Your task to perform on an android device: clear all cookies in the chrome app Image 0: 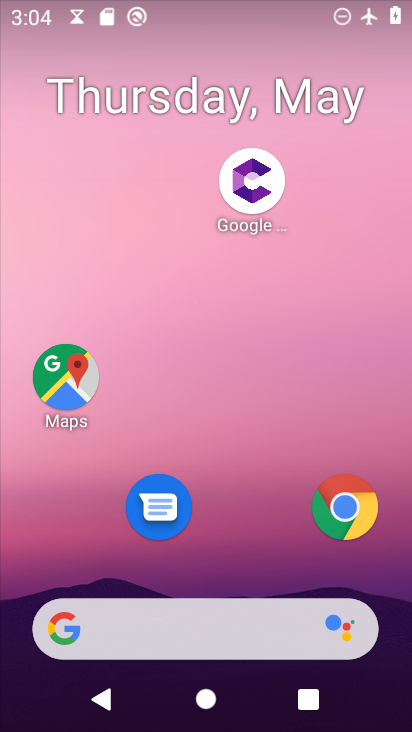
Step 0: click (363, 496)
Your task to perform on an android device: clear all cookies in the chrome app Image 1: 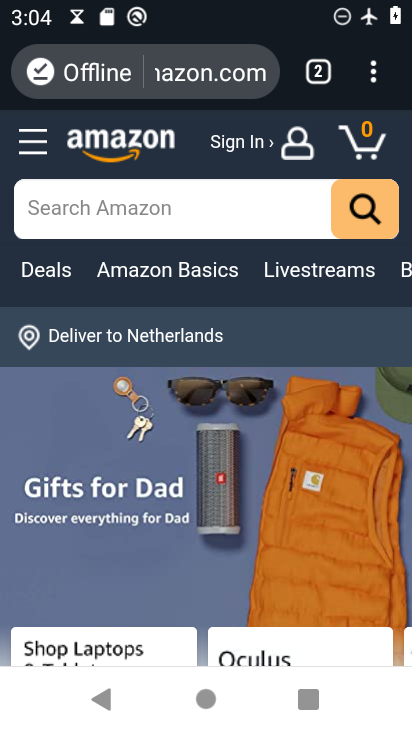
Step 1: click (374, 65)
Your task to perform on an android device: clear all cookies in the chrome app Image 2: 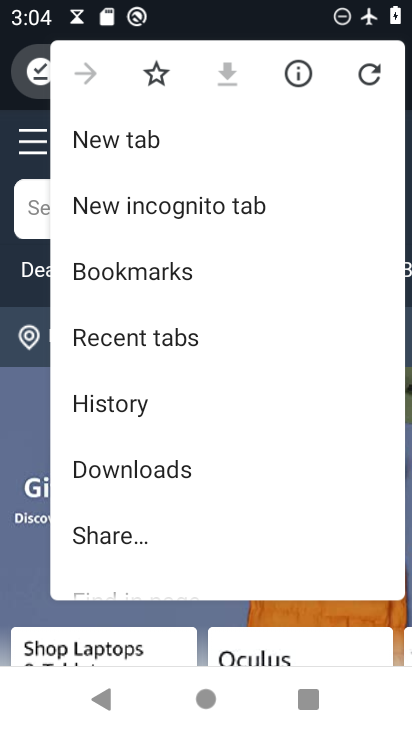
Step 2: drag from (303, 556) to (360, 156)
Your task to perform on an android device: clear all cookies in the chrome app Image 3: 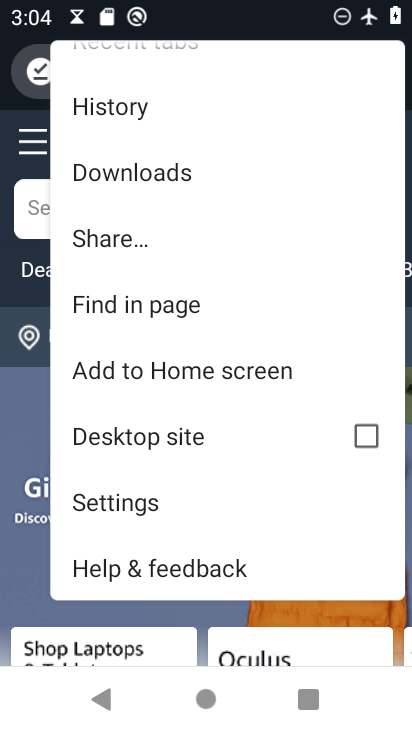
Step 3: click (187, 509)
Your task to perform on an android device: clear all cookies in the chrome app Image 4: 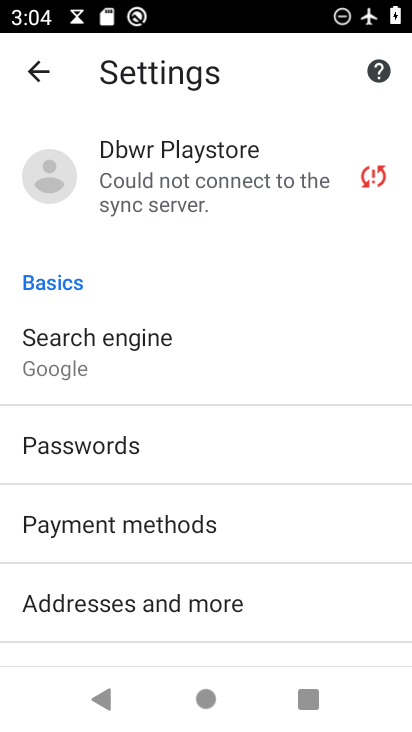
Step 4: drag from (329, 650) to (282, 204)
Your task to perform on an android device: clear all cookies in the chrome app Image 5: 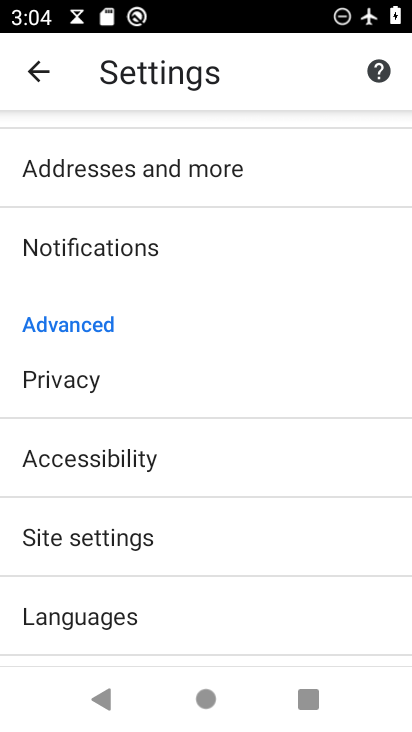
Step 5: drag from (245, 629) to (236, 359)
Your task to perform on an android device: clear all cookies in the chrome app Image 6: 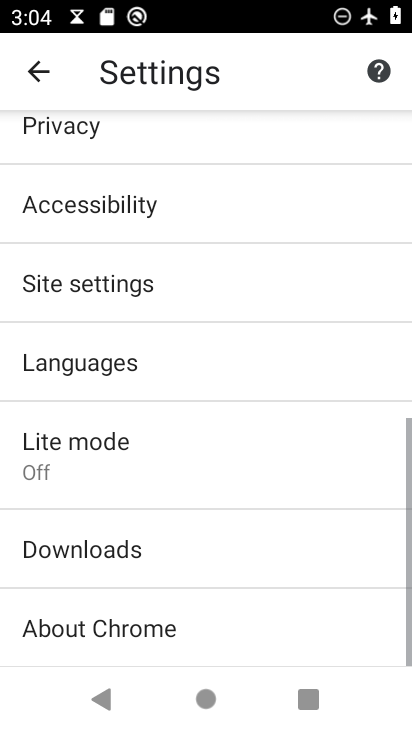
Step 6: drag from (255, 368) to (246, 226)
Your task to perform on an android device: clear all cookies in the chrome app Image 7: 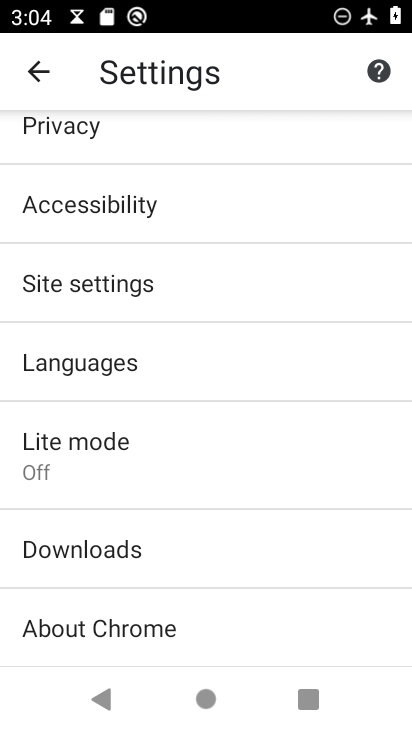
Step 7: click (131, 146)
Your task to perform on an android device: clear all cookies in the chrome app Image 8: 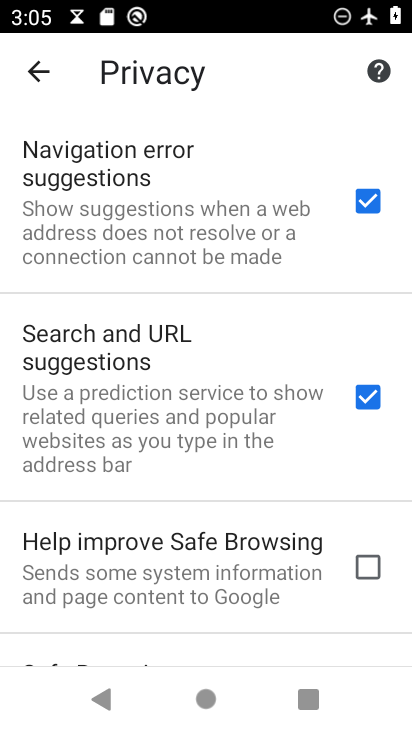
Step 8: drag from (180, 616) to (239, 34)
Your task to perform on an android device: clear all cookies in the chrome app Image 9: 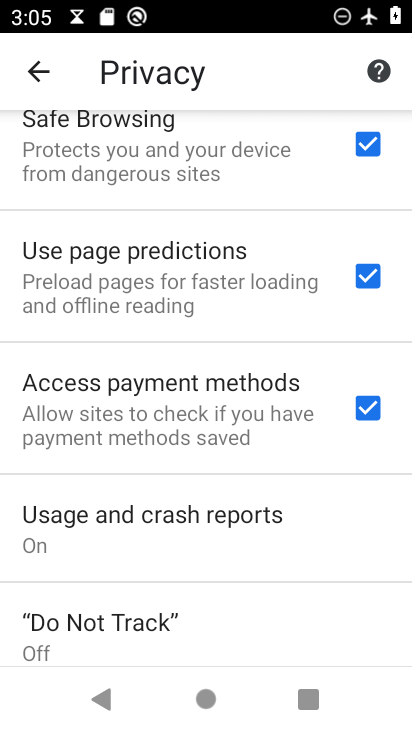
Step 9: drag from (242, 637) to (224, 13)
Your task to perform on an android device: clear all cookies in the chrome app Image 10: 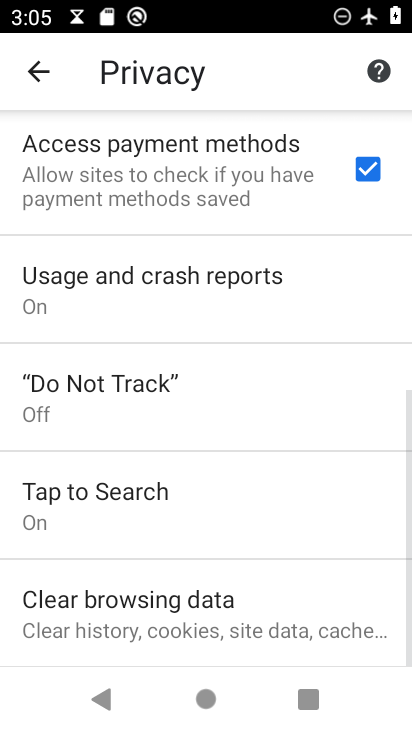
Step 10: click (203, 617)
Your task to perform on an android device: clear all cookies in the chrome app Image 11: 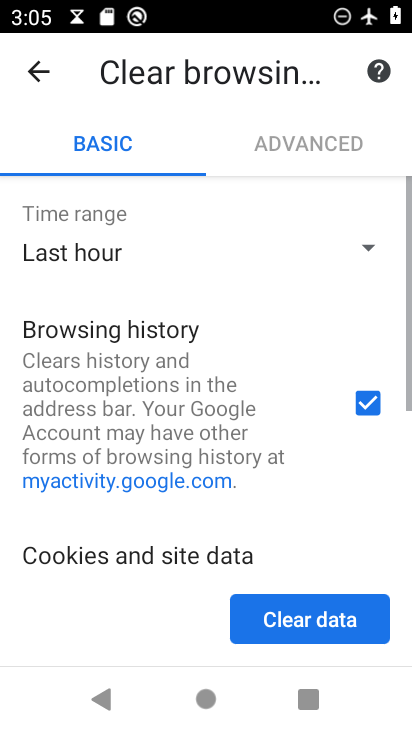
Step 11: click (365, 401)
Your task to perform on an android device: clear all cookies in the chrome app Image 12: 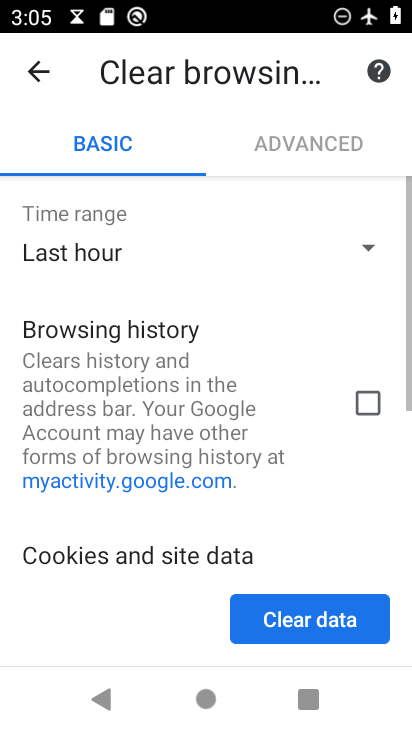
Step 12: drag from (351, 535) to (304, 158)
Your task to perform on an android device: clear all cookies in the chrome app Image 13: 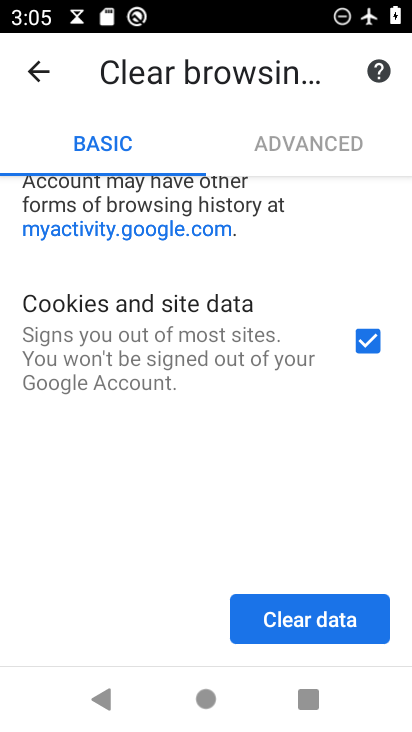
Step 13: click (315, 626)
Your task to perform on an android device: clear all cookies in the chrome app Image 14: 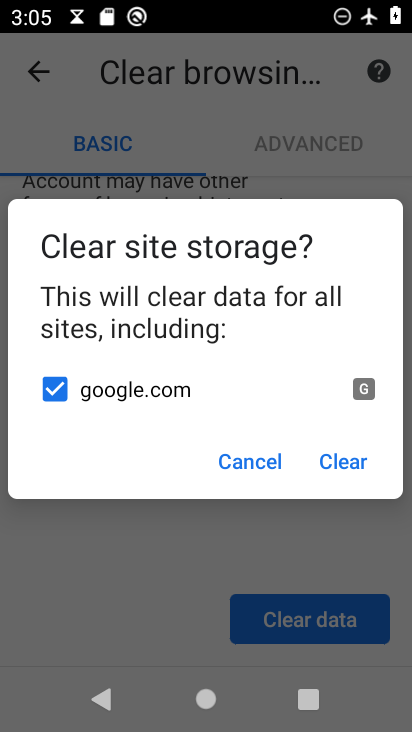
Step 14: click (356, 458)
Your task to perform on an android device: clear all cookies in the chrome app Image 15: 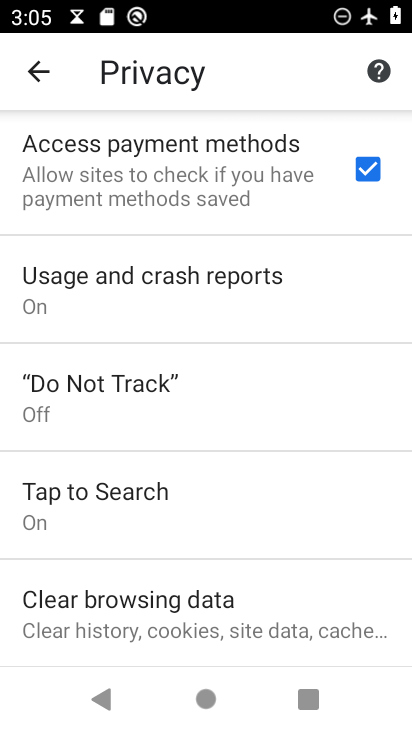
Step 15: task complete